Your task to perform on an android device: Open Youtube and go to the subscriptions tab Image 0: 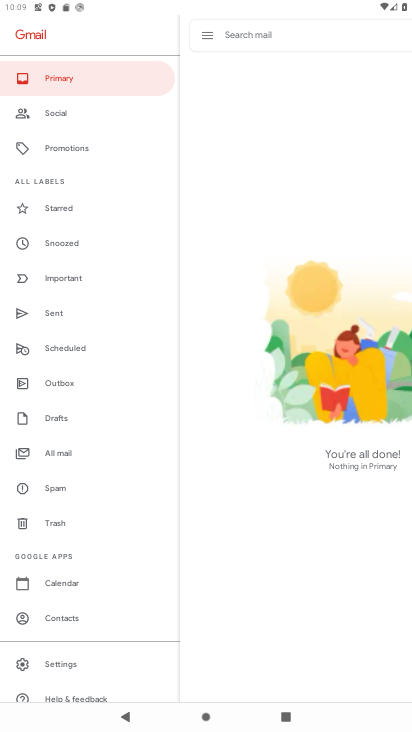
Step 0: press home button
Your task to perform on an android device: Open Youtube and go to the subscriptions tab Image 1: 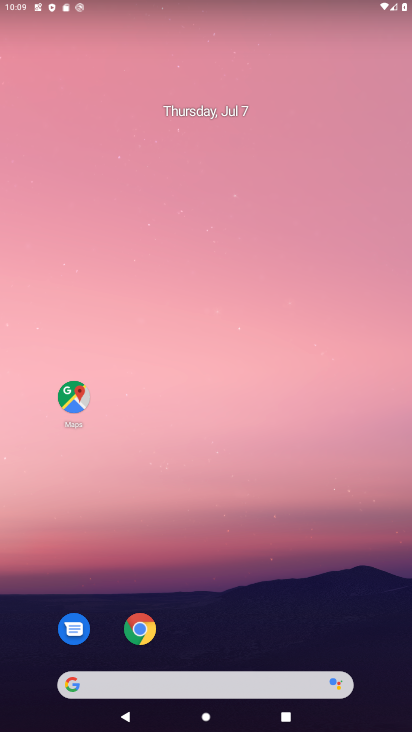
Step 1: drag from (180, 663) to (152, 28)
Your task to perform on an android device: Open Youtube and go to the subscriptions tab Image 2: 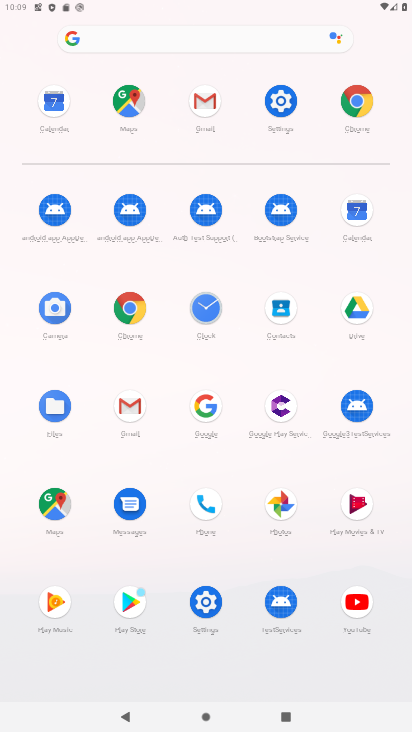
Step 2: click (364, 599)
Your task to perform on an android device: Open Youtube and go to the subscriptions tab Image 3: 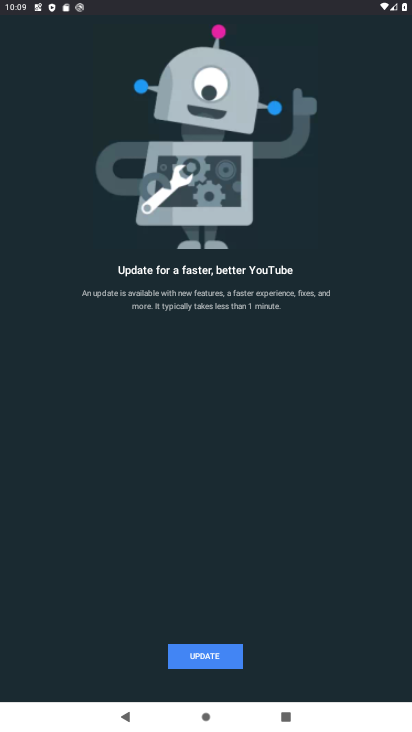
Step 3: click (201, 652)
Your task to perform on an android device: Open Youtube and go to the subscriptions tab Image 4: 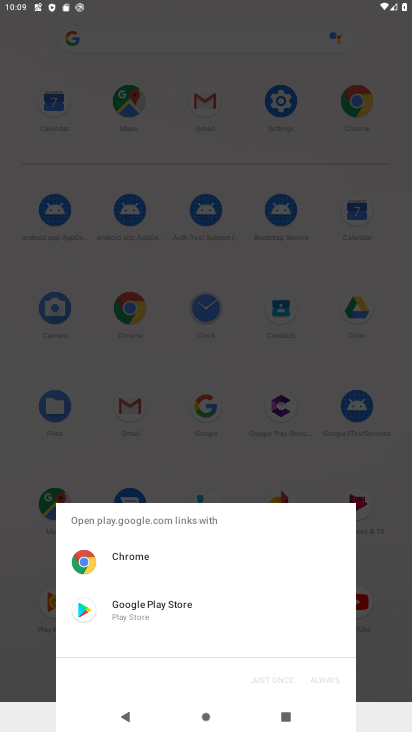
Step 4: click (152, 615)
Your task to perform on an android device: Open Youtube and go to the subscriptions tab Image 5: 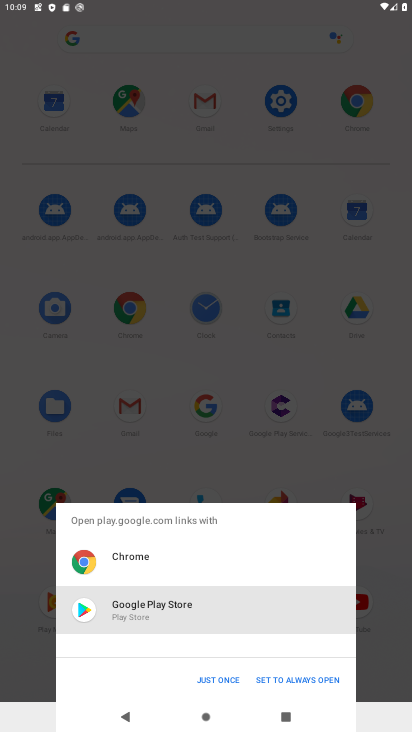
Step 5: click (223, 683)
Your task to perform on an android device: Open Youtube and go to the subscriptions tab Image 6: 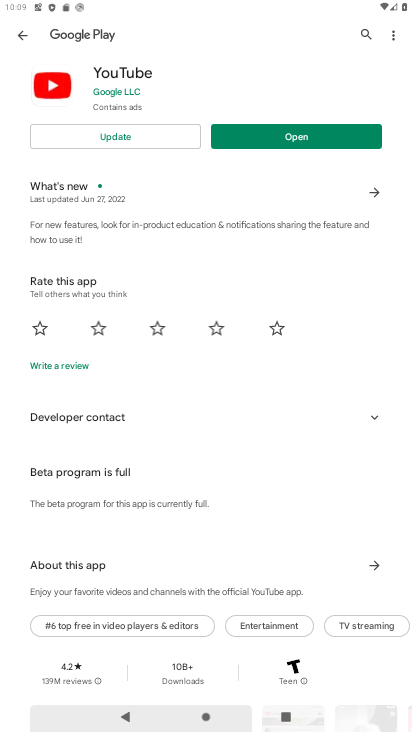
Step 6: click (137, 142)
Your task to perform on an android device: Open Youtube and go to the subscriptions tab Image 7: 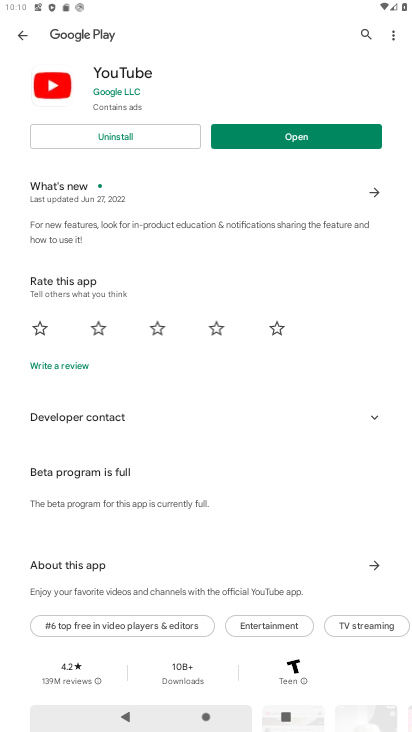
Step 7: click (327, 120)
Your task to perform on an android device: Open Youtube and go to the subscriptions tab Image 8: 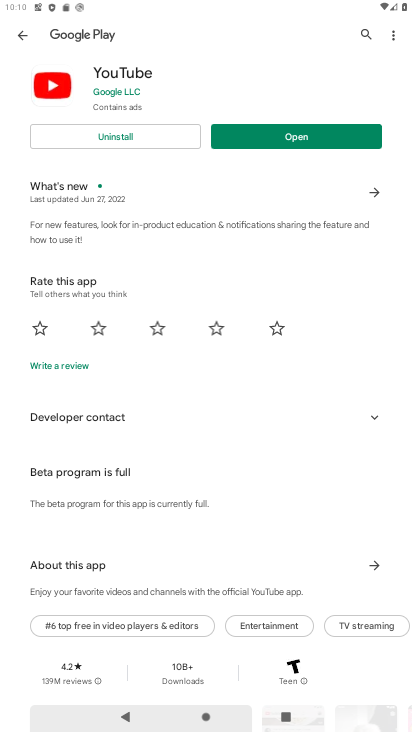
Step 8: click (323, 149)
Your task to perform on an android device: Open Youtube and go to the subscriptions tab Image 9: 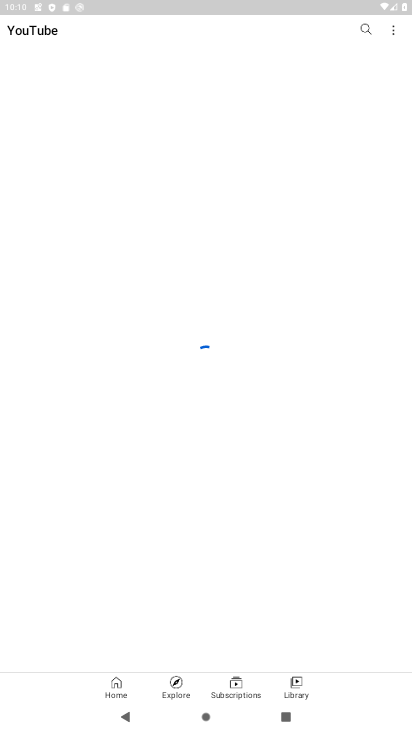
Step 9: click (228, 688)
Your task to perform on an android device: Open Youtube and go to the subscriptions tab Image 10: 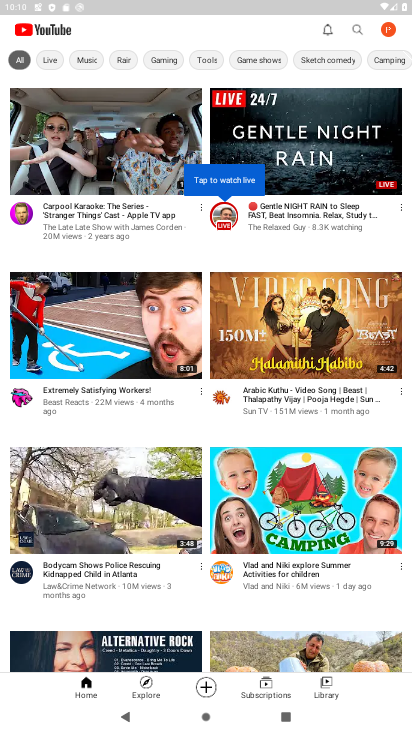
Step 10: click (256, 683)
Your task to perform on an android device: Open Youtube and go to the subscriptions tab Image 11: 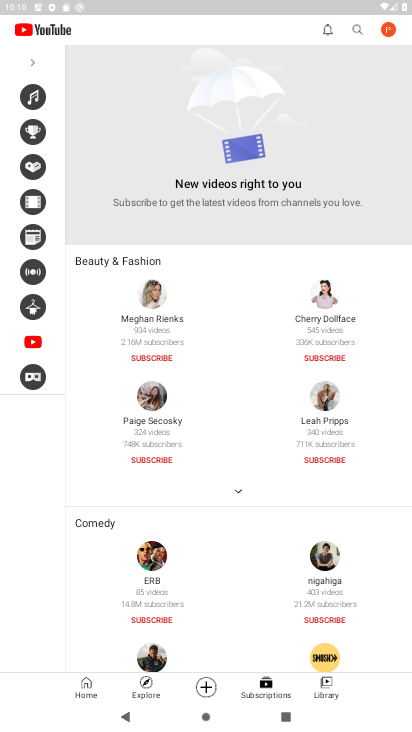
Step 11: task complete